Your task to perform on an android device: turn on airplane mode Image 0: 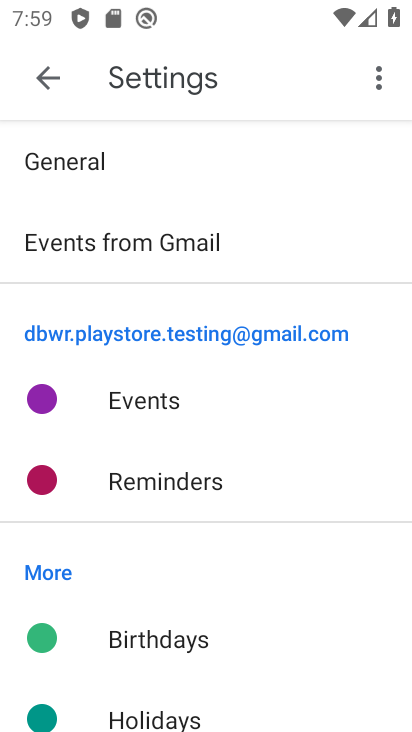
Step 0: press home button
Your task to perform on an android device: turn on airplane mode Image 1: 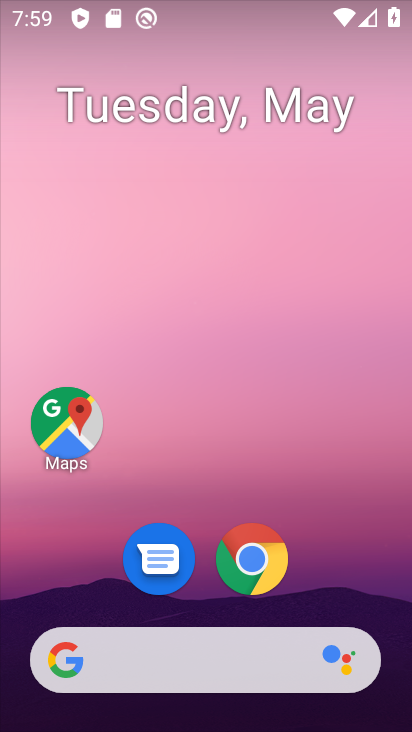
Step 1: drag from (198, 588) to (164, 190)
Your task to perform on an android device: turn on airplane mode Image 2: 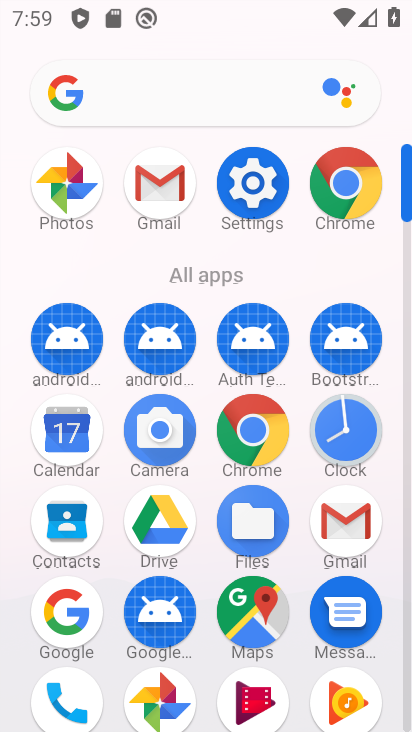
Step 2: click (227, 184)
Your task to perform on an android device: turn on airplane mode Image 3: 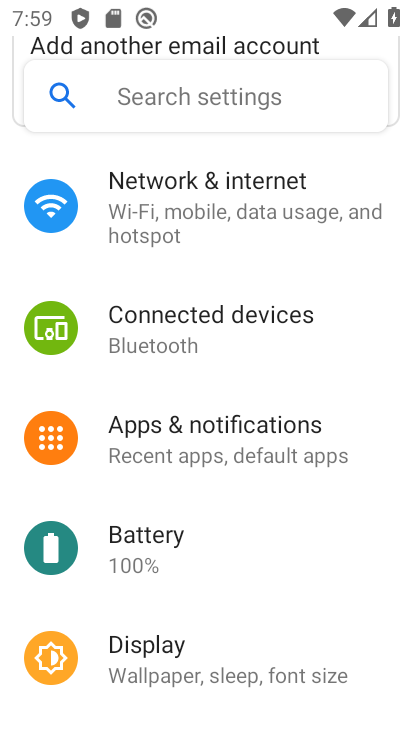
Step 3: click (203, 228)
Your task to perform on an android device: turn on airplane mode Image 4: 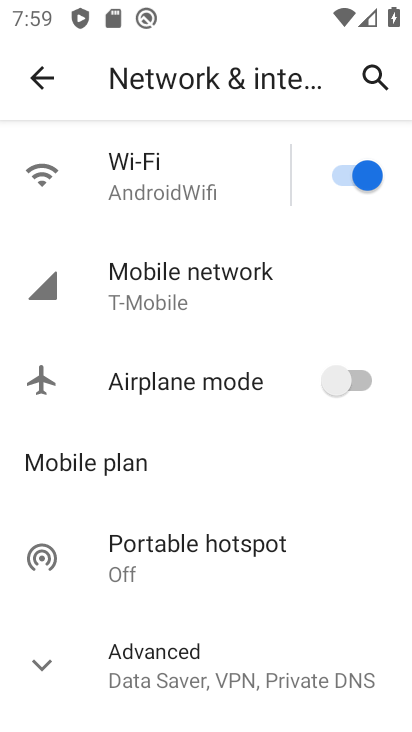
Step 4: click (352, 373)
Your task to perform on an android device: turn on airplane mode Image 5: 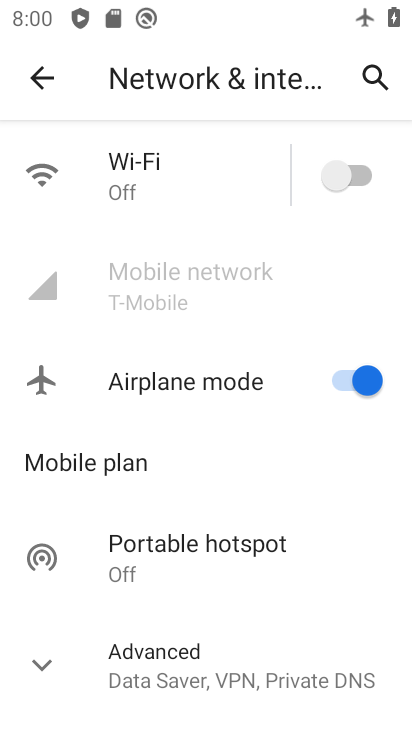
Step 5: task complete